Your task to perform on an android device: turn notification dots on Image 0: 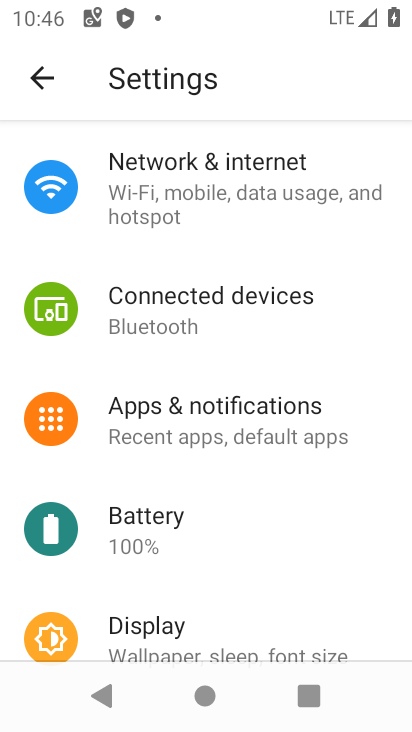
Step 0: click (231, 404)
Your task to perform on an android device: turn notification dots on Image 1: 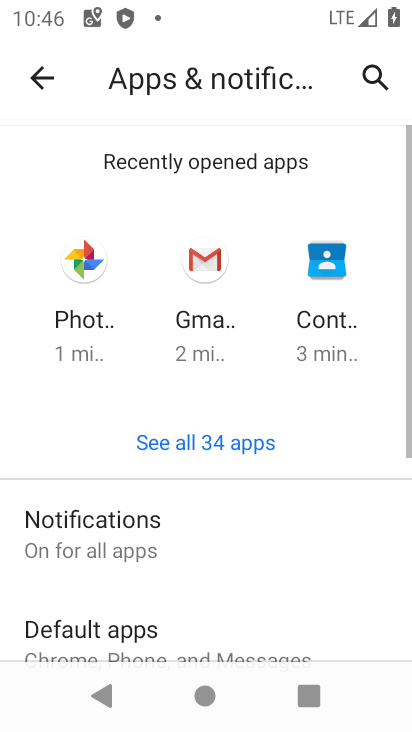
Step 1: click (141, 512)
Your task to perform on an android device: turn notification dots on Image 2: 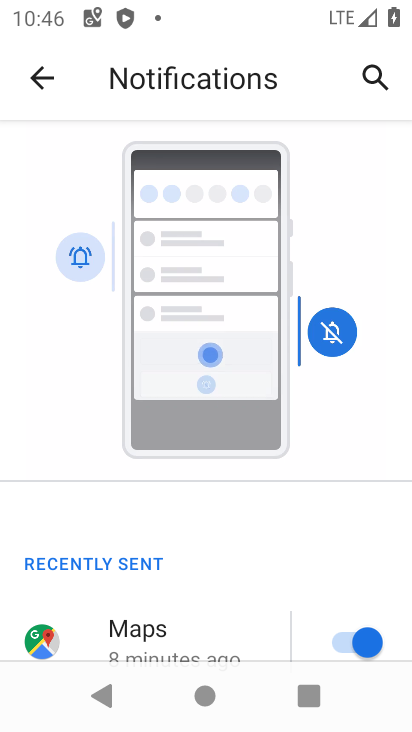
Step 2: drag from (151, 627) to (232, 124)
Your task to perform on an android device: turn notification dots on Image 3: 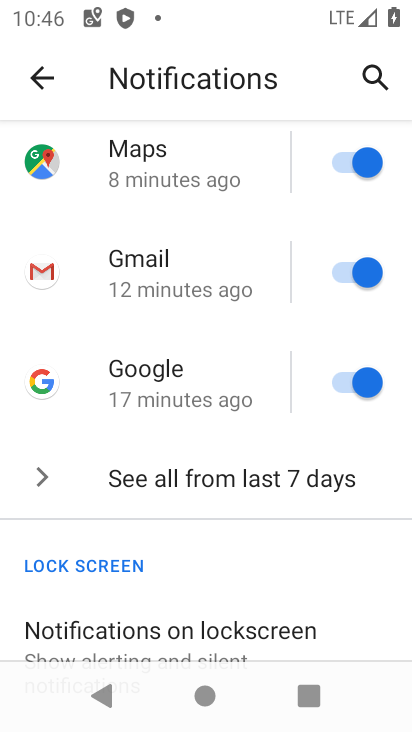
Step 3: drag from (158, 577) to (239, 97)
Your task to perform on an android device: turn notification dots on Image 4: 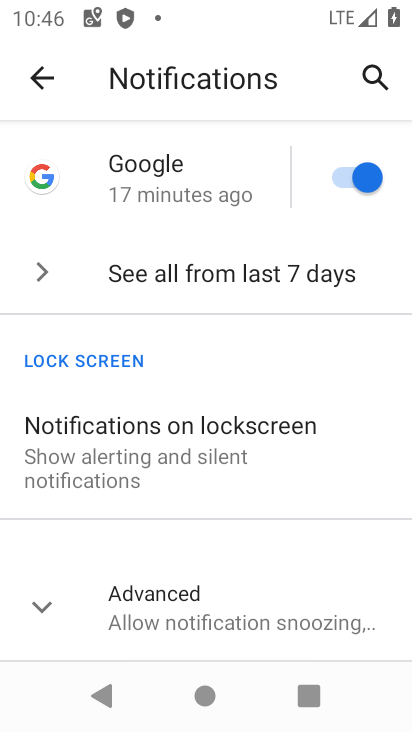
Step 4: click (167, 597)
Your task to perform on an android device: turn notification dots on Image 5: 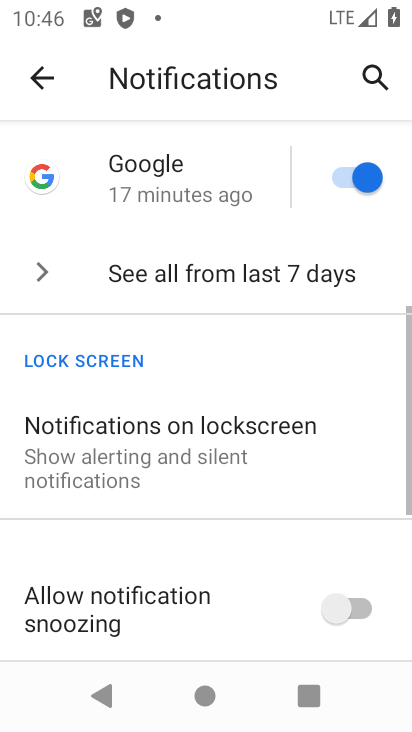
Step 5: task complete